Your task to perform on an android device: Go to CNN.com Image 0: 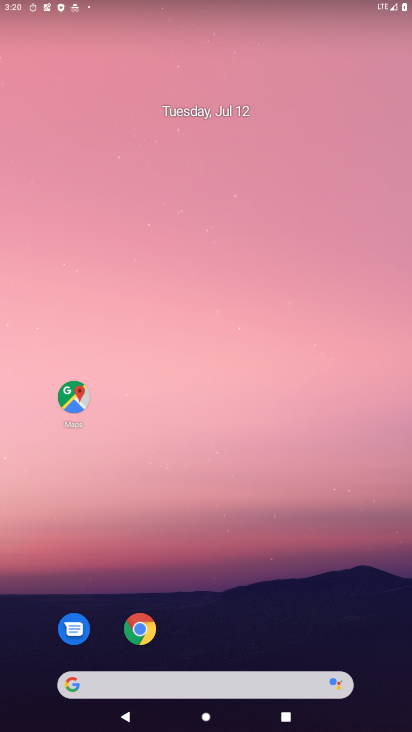
Step 0: drag from (249, 553) to (315, 67)
Your task to perform on an android device: Go to CNN.com Image 1: 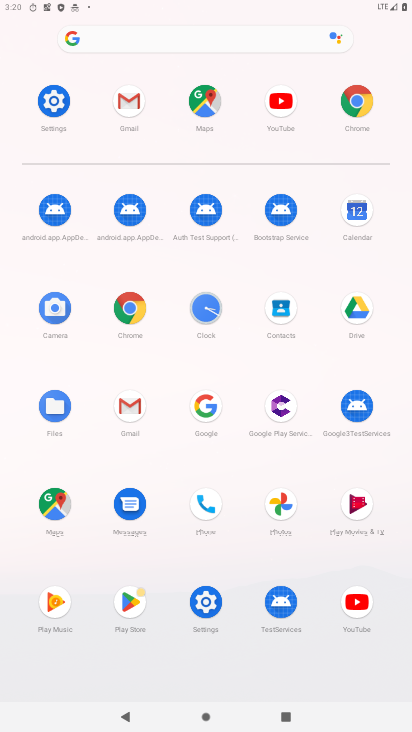
Step 1: click (124, 300)
Your task to perform on an android device: Go to CNN.com Image 2: 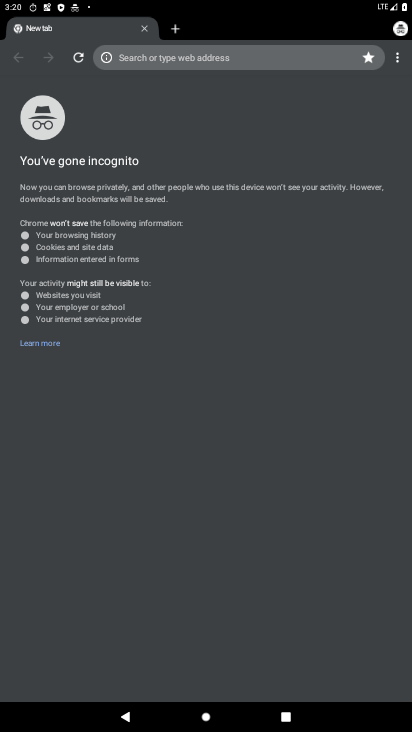
Step 2: drag from (393, 54) to (283, 50)
Your task to perform on an android device: Go to CNN.com Image 3: 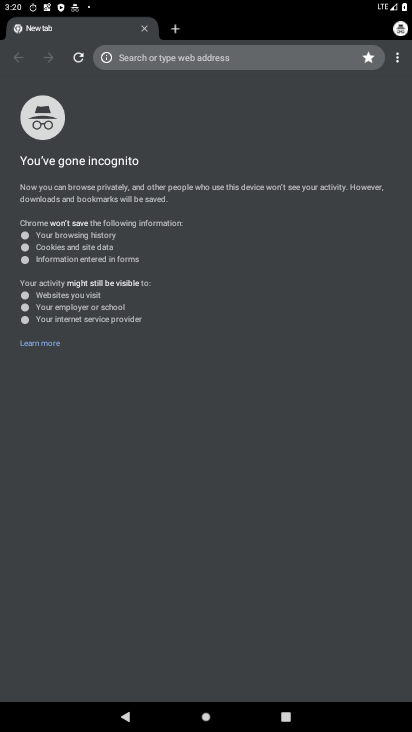
Step 3: click (283, 50)
Your task to perform on an android device: Go to CNN.com Image 4: 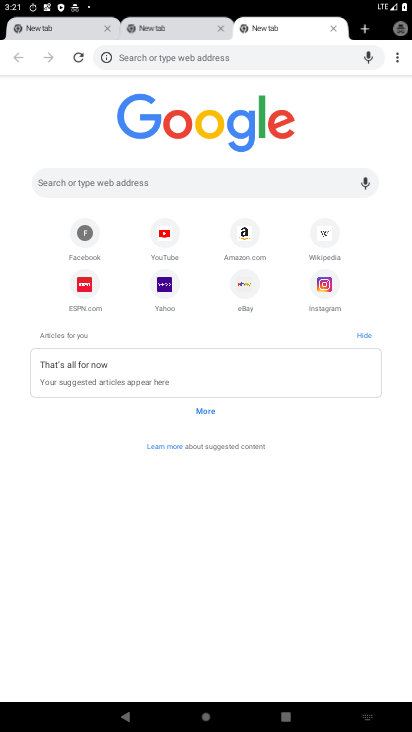
Step 4: click (149, 49)
Your task to perform on an android device: Go to CNN.com Image 5: 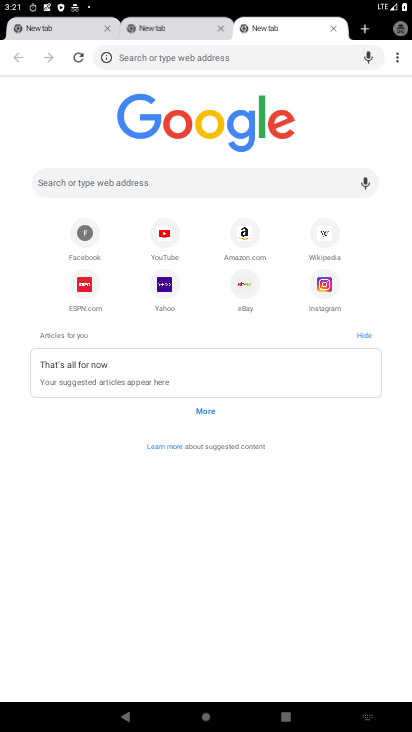
Step 5: type " CNN.com"
Your task to perform on an android device: Go to CNN.com Image 6: 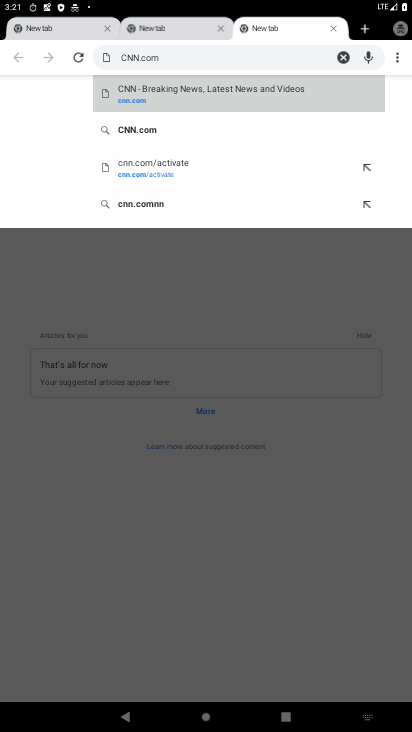
Step 6: click (117, 100)
Your task to perform on an android device: Go to CNN.com Image 7: 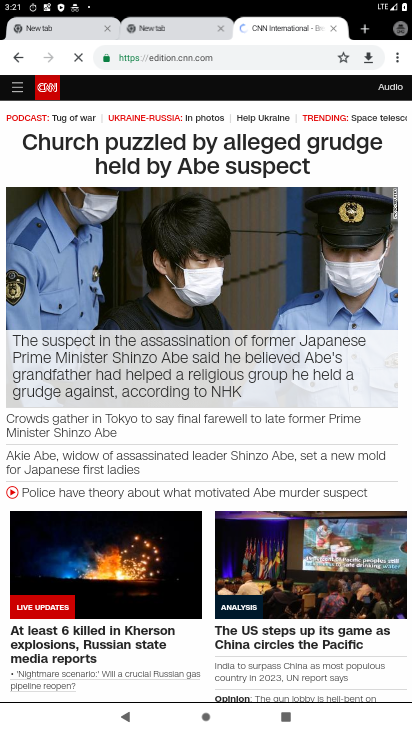
Step 7: task complete